Your task to perform on an android device: find photos in the google photos app Image 0: 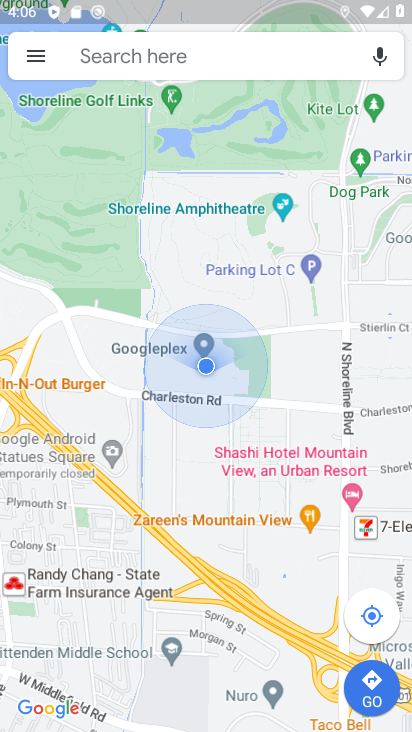
Step 0: press home button
Your task to perform on an android device: find photos in the google photos app Image 1: 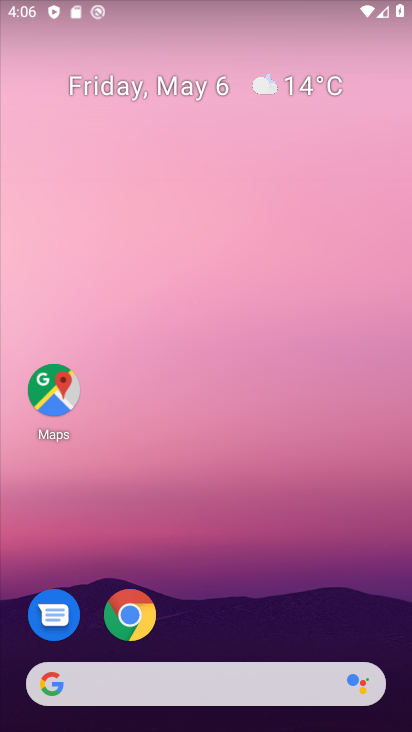
Step 1: drag from (240, 632) to (204, 210)
Your task to perform on an android device: find photos in the google photos app Image 2: 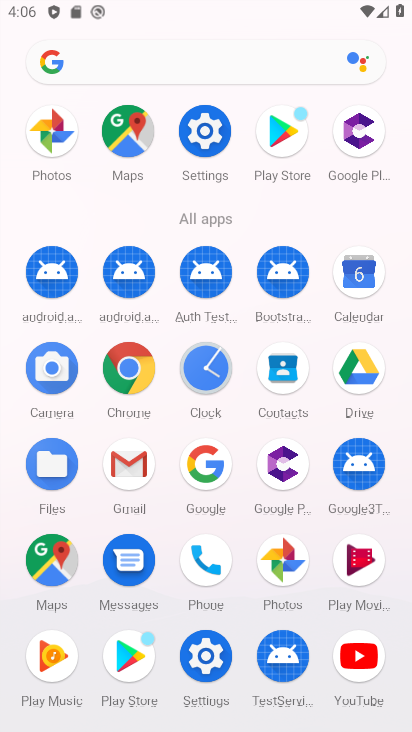
Step 2: click (274, 560)
Your task to perform on an android device: find photos in the google photos app Image 3: 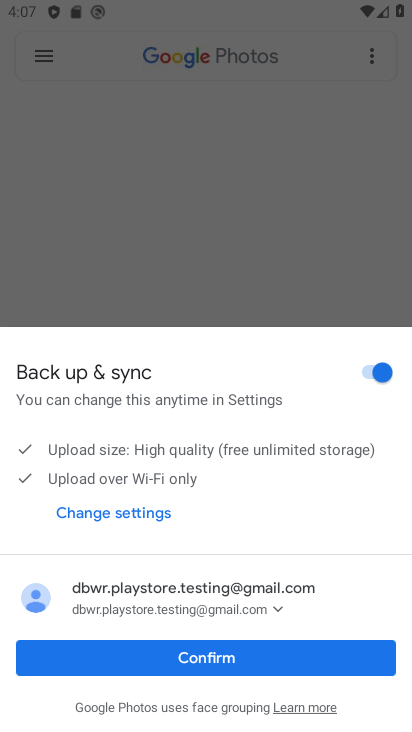
Step 3: click (243, 667)
Your task to perform on an android device: find photos in the google photos app Image 4: 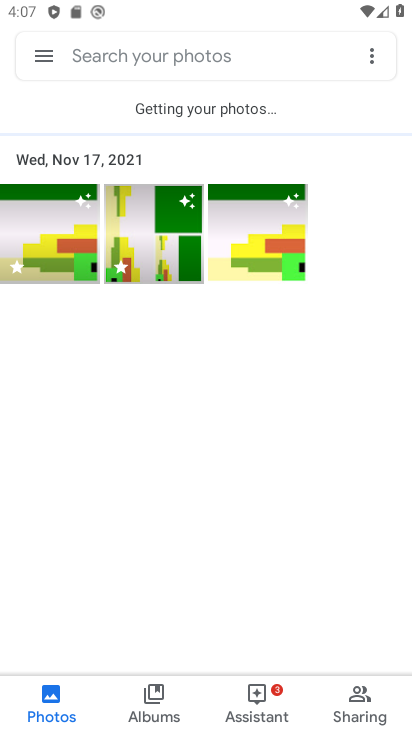
Step 4: task complete